Your task to perform on an android device: turn off notifications settings in the gmail app Image 0: 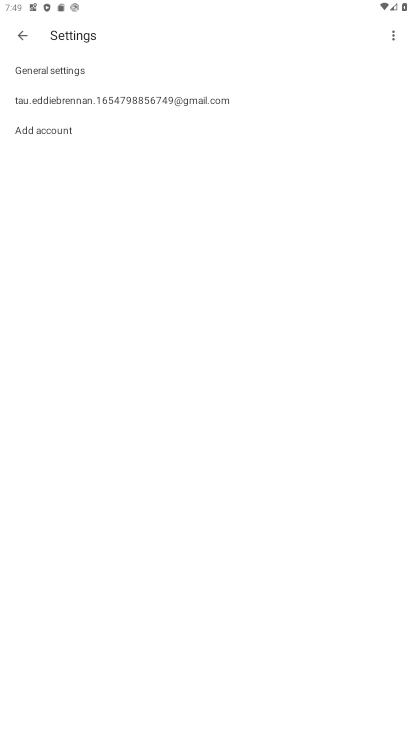
Step 0: press home button
Your task to perform on an android device: turn off notifications settings in the gmail app Image 1: 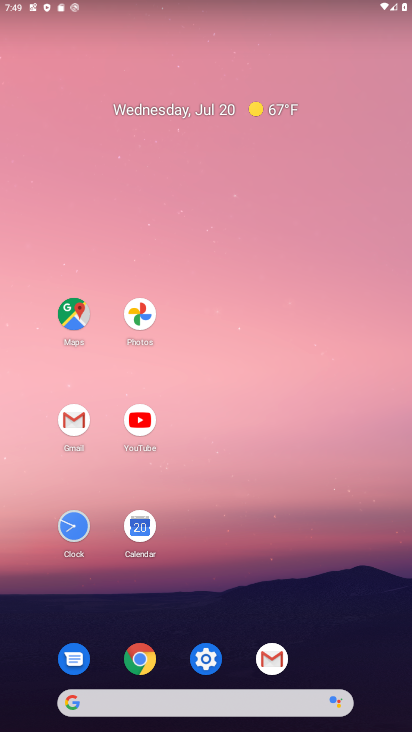
Step 1: click (271, 659)
Your task to perform on an android device: turn off notifications settings in the gmail app Image 2: 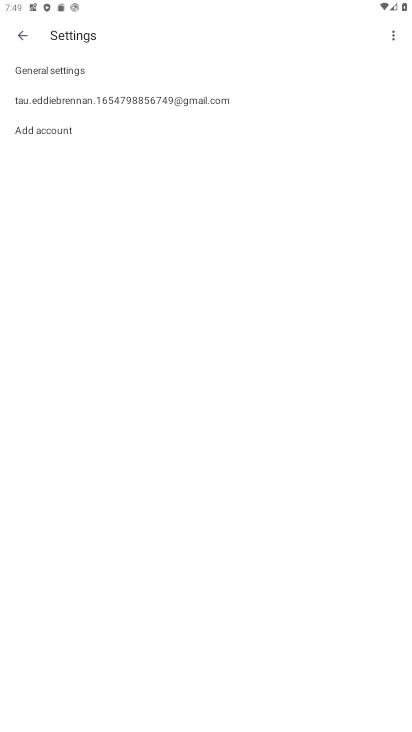
Step 2: click (44, 74)
Your task to perform on an android device: turn off notifications settings in the gmail app Image 3: 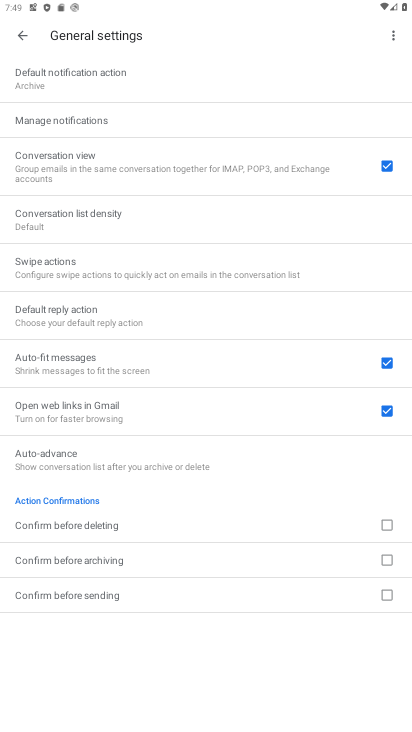
Step 3: click (105, 123)
Your task to perform on an android device: turn off notifications settings in the gmail app Image 4: 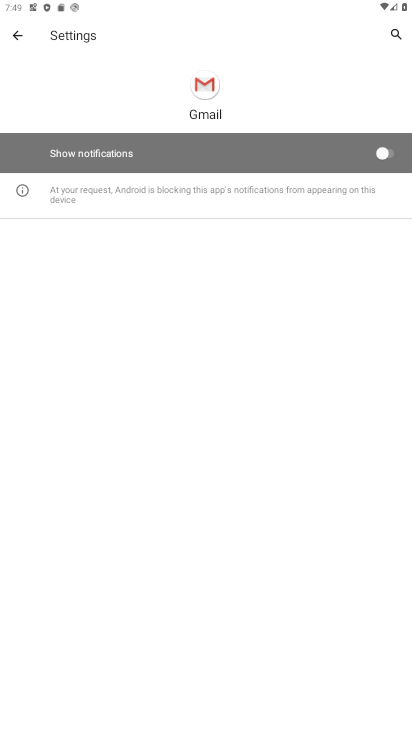
Step 4: task complete